Your task to perform on an android device: Open calendar and show me the first week of next month Image 0: 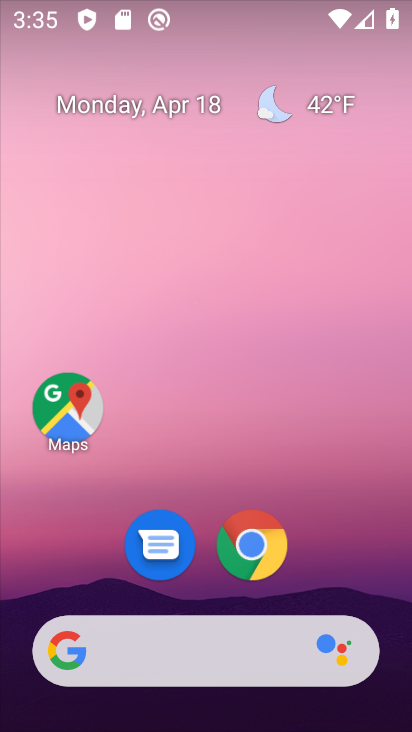
Step 0: drag from (315, 559) to (287, 56)
Your task to perform on an android device: Open calendar and show me the first week of next month Image 1: 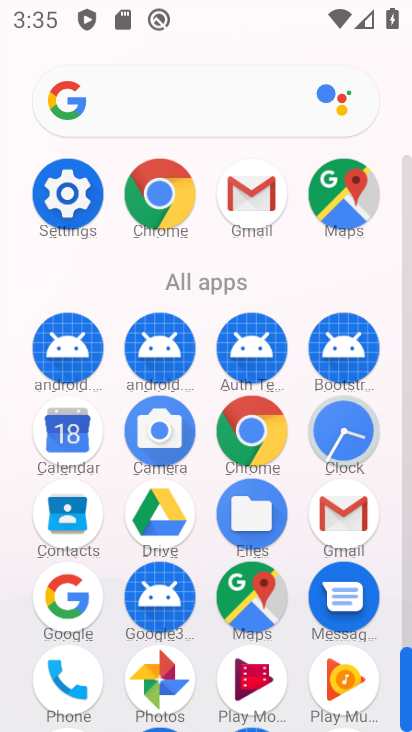
Step 1: click (51, 448)
Your task to perform on an android device: Open calendar and show me the first week of next month Image 2: 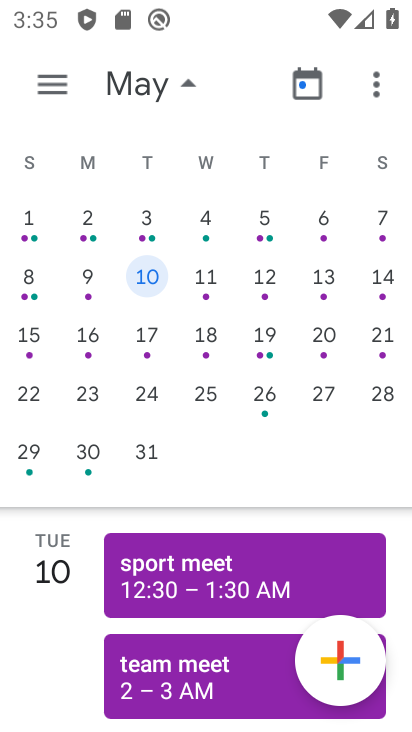
Step 2: click (150, 216)
Your task to perform on an android device: Open calendar and show me the first week of next month Image 3: 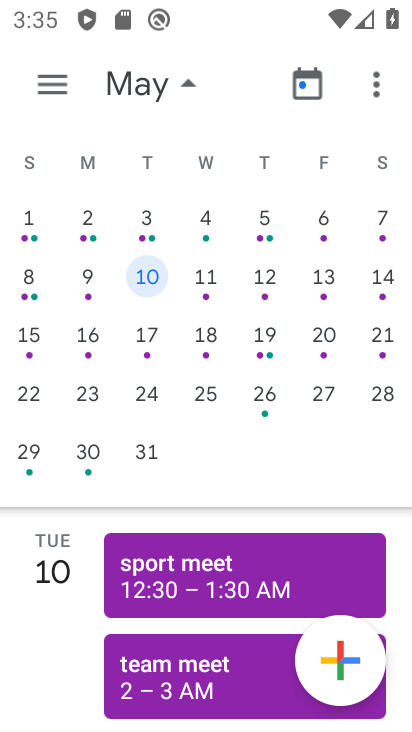
Step 3: click (141, 220)
Your task to perform on an android device: Open calendar and show me the first week of next month Image 4: 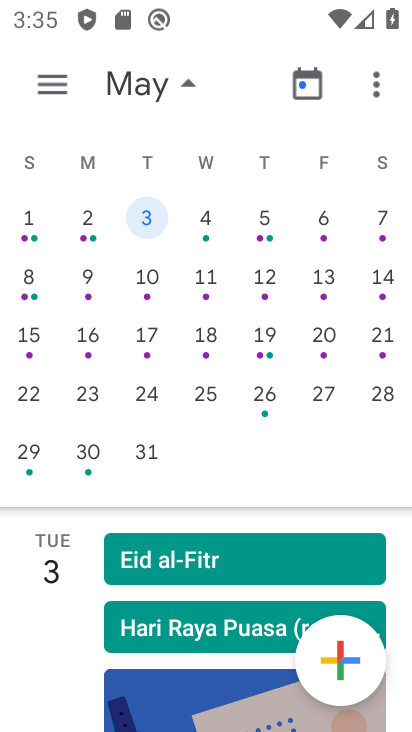
Step 4: task complete